Your task to perform on an android device: turn off translation in the chrome app Image 0: 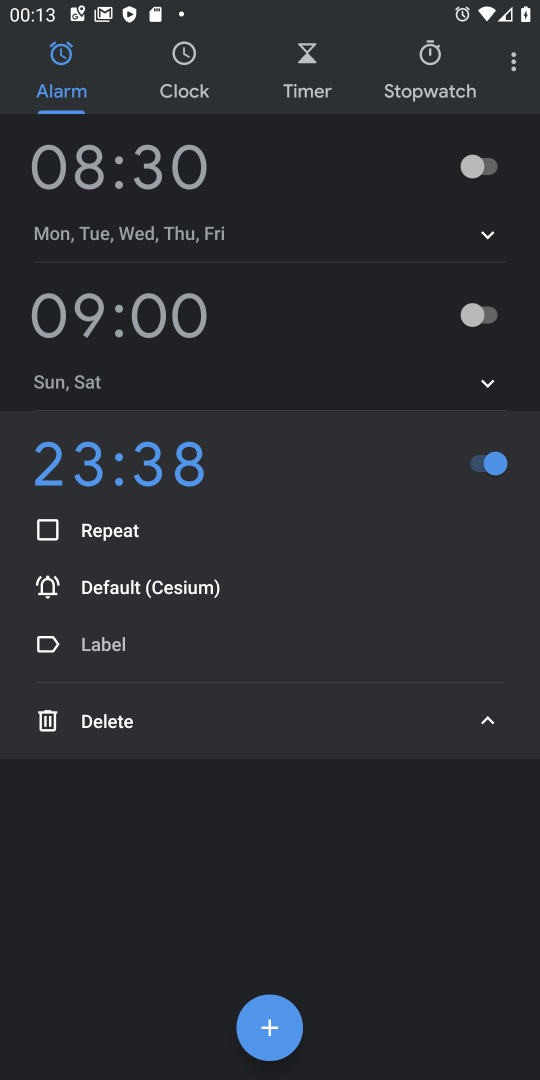
Step 0: press home button
Your task to perform on an android device: turn off translation in the chrome app Image 1: 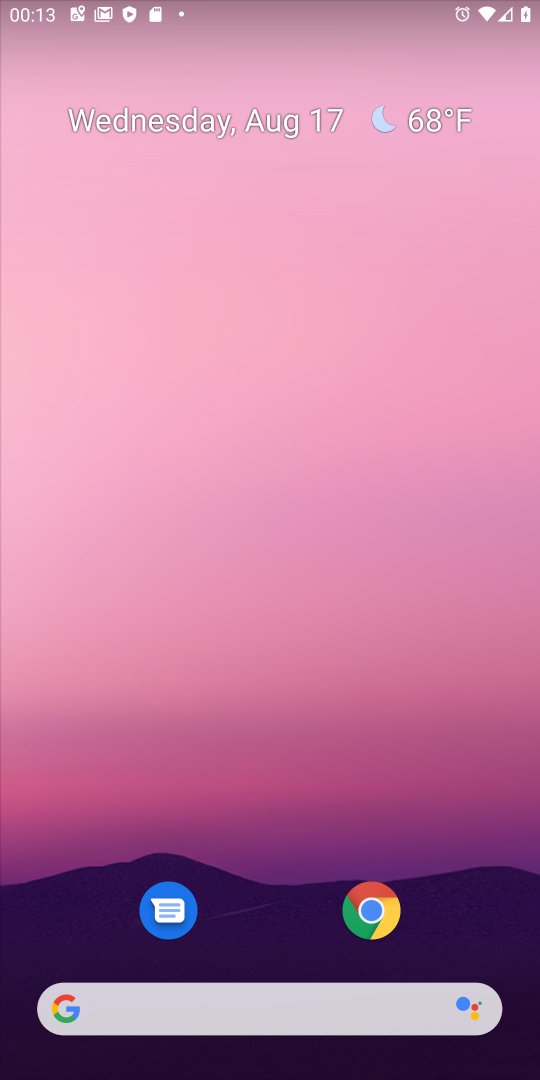
Step 1: click (522, 240)
Your task to perform on an android device: turn off translation in the chrome app Image 2: 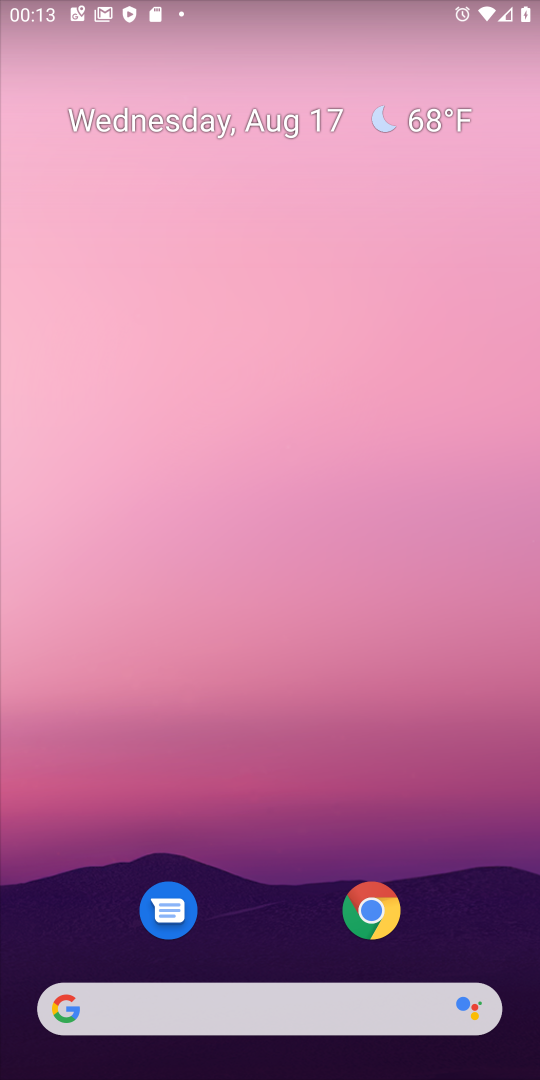
Step 2: drag from (294, 878) to (387, 186)
Your task to perform on an android device: turn off translation in the chrome app Image 3: 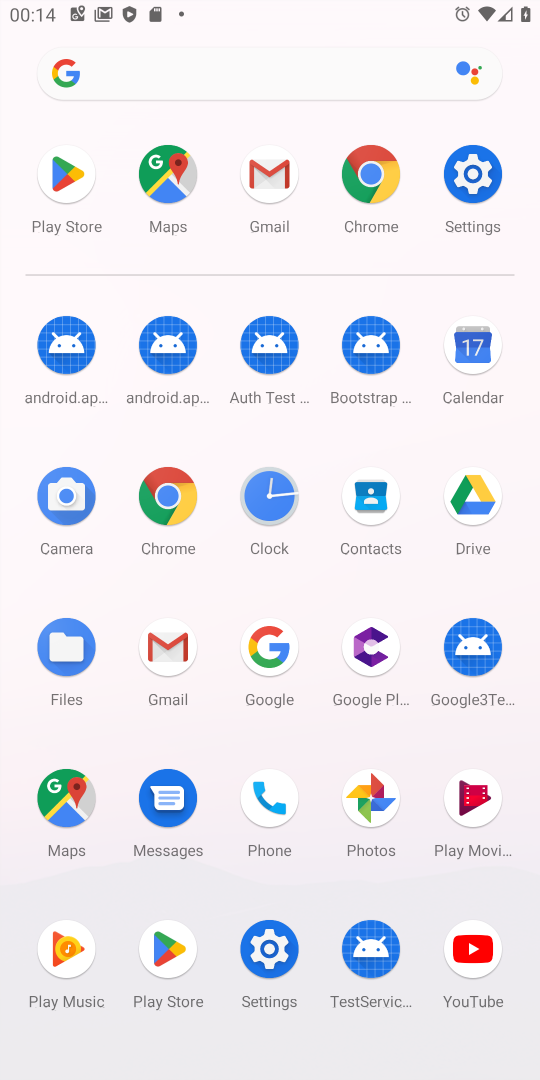
Step 3: click (158, 489)
Your task to perform on an android device: turn off translation in the chrome app Image 4: 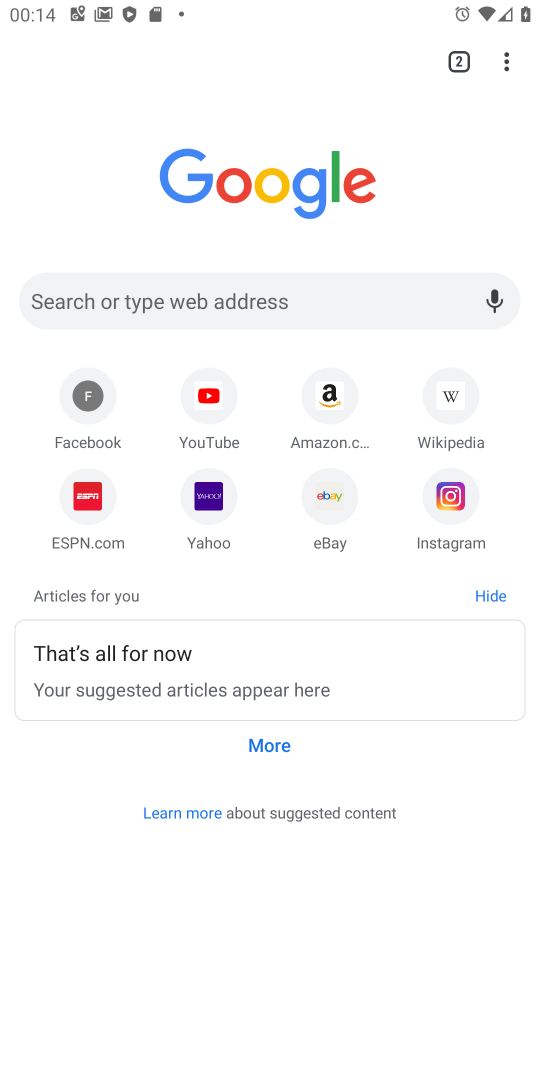
Step 4: drag from (510, 47) to (324, 586)
Your task to perform on an android device: turn off translation in the chrome app Image 5: 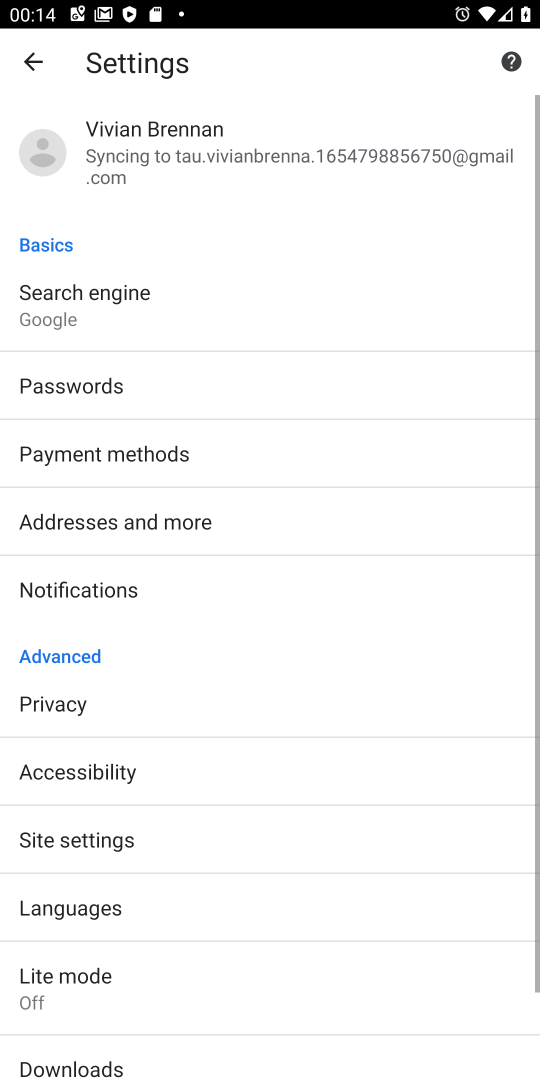
Step 5: drag from (345, 855) to (442, 90)
Your task to perform on an android device: turn off translation in the chrome app Image 6: 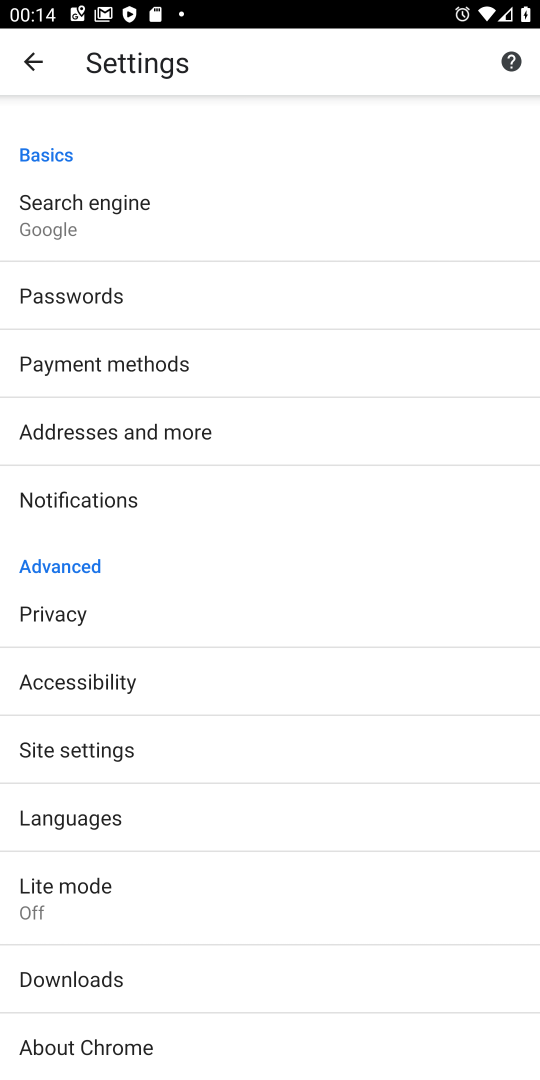
Step 6: click (162, 900)
Your task to perform on an android device: turn off translation in the chrome app Image 7: 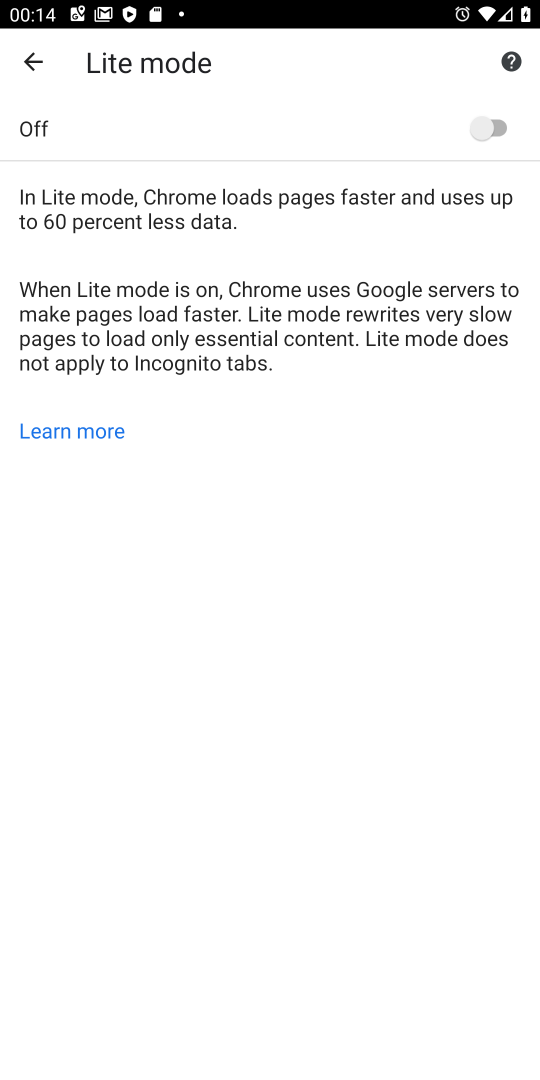
Step 7: click (41, 64)
Your task to perform on an android device: turn off translation in the chrome app Image 8: 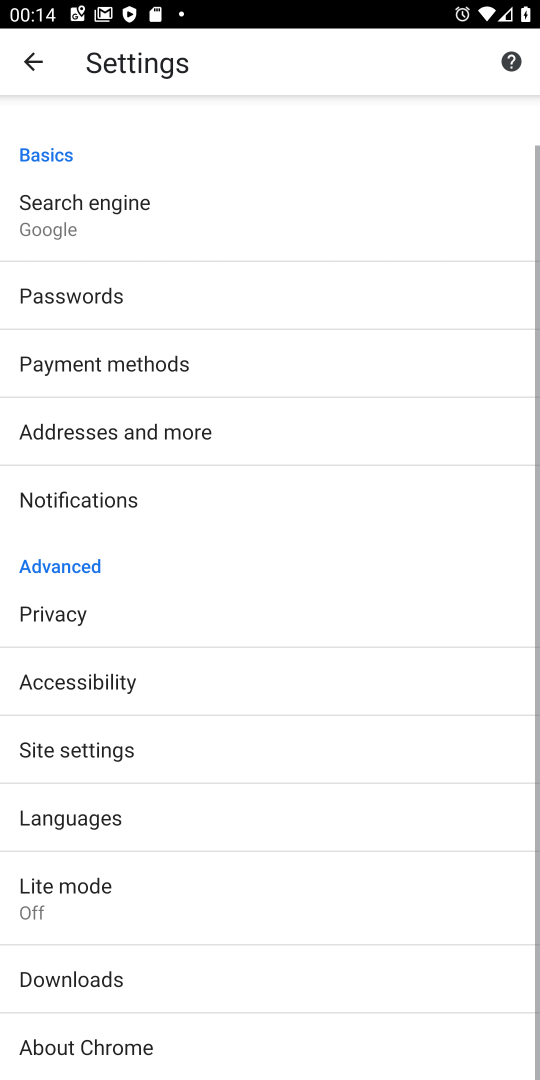
Step 8: click (149, 832)
Your task to perform on an android device: turn off translation in the chrome app Image 9: 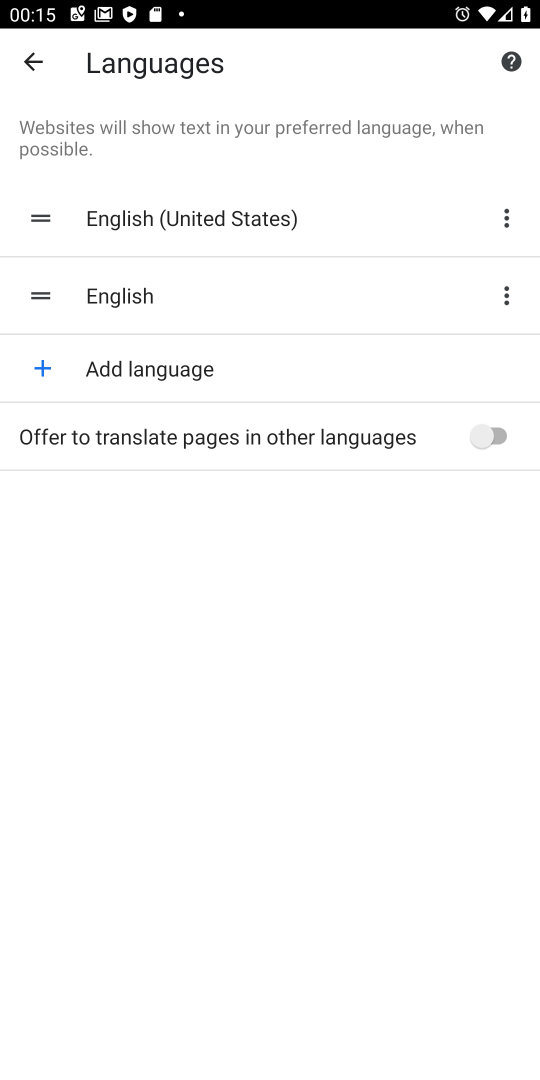
Step 9: task complete